Your task to perform on an android device: Search for usb-c to usb-b on walmart, select the first entry, add it to the cart, then select checkout. Image 0: 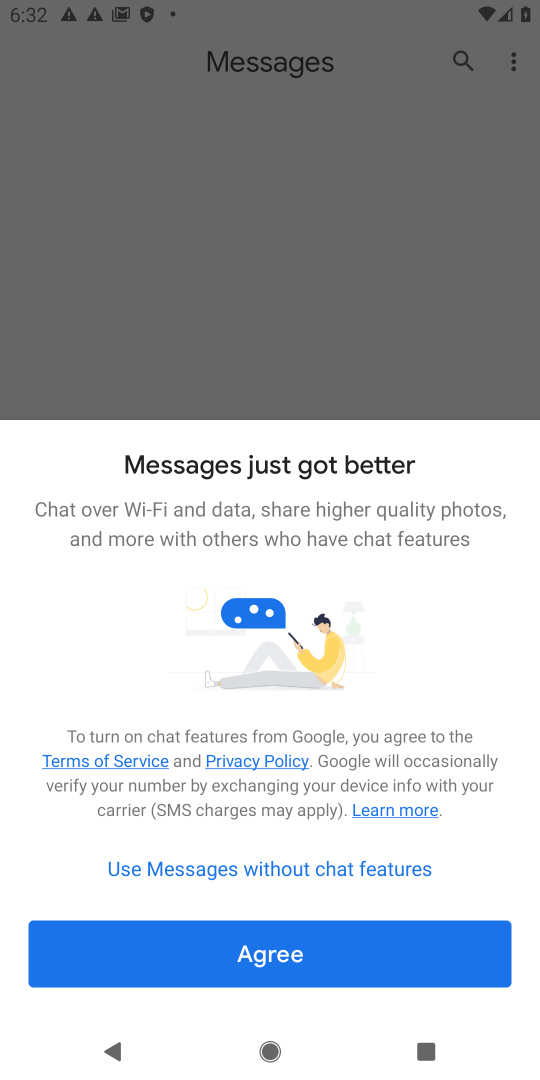
Step 0: press home button
Your task to perform on an android device: Search for usb-c to usb-b on walmart, select the first entry, add it to the cart, then select checkout. Image 1: 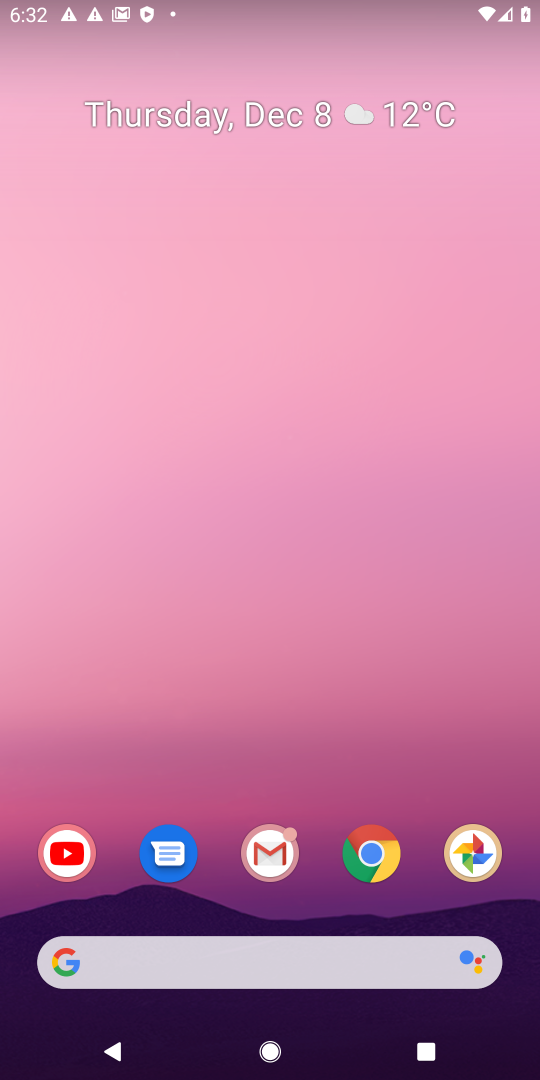
Step 1: click (216, 961)
Your task to perform on an android device: Search for usb-c to usb-b on walmart, select the first entry, add it to the cart, then select checkout. Image 2: 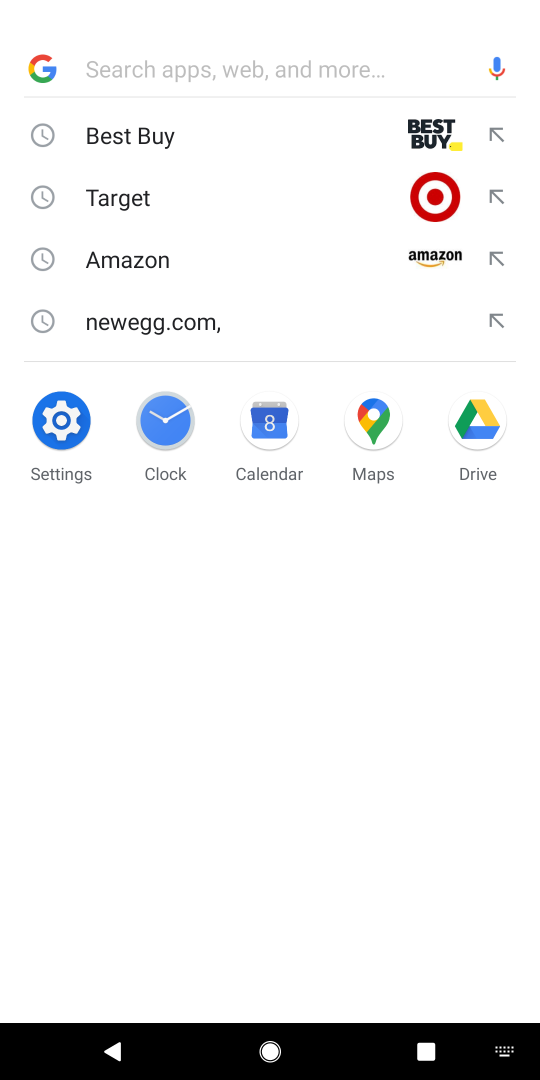
Step 2: type "walmart"
Your task to perform on an android device: Search for usb-c to usb-b on walmart, select the first entry, add it to the cart, then select checkout. Image 3: 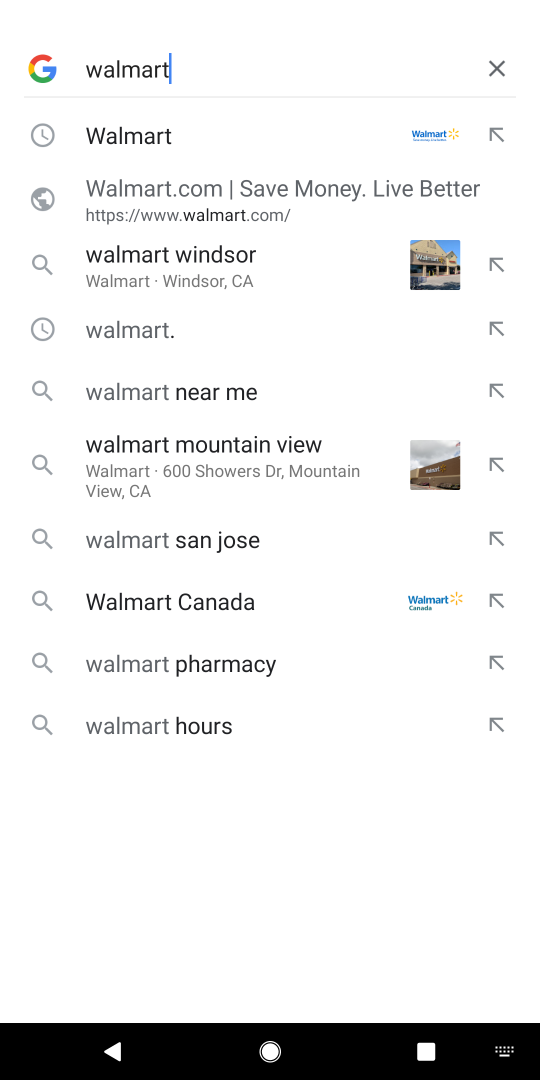
Step 3: type ""
Your task to perform on an android device: Search for usb-c to usb-b on walmart, select the first entry, add it to the cart, then select checkout. Image 4: 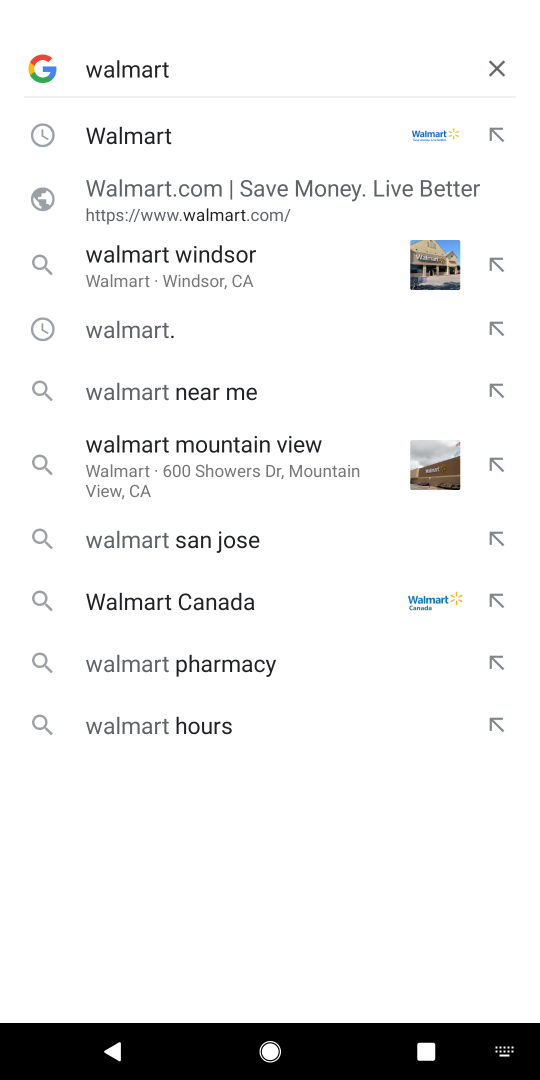
Step 4: click (146, 128)
Your task to perform on an android device: Search for usb-c to usb-b on walmart, select the first entry, add it to the cart, then select checkout. Image 5: 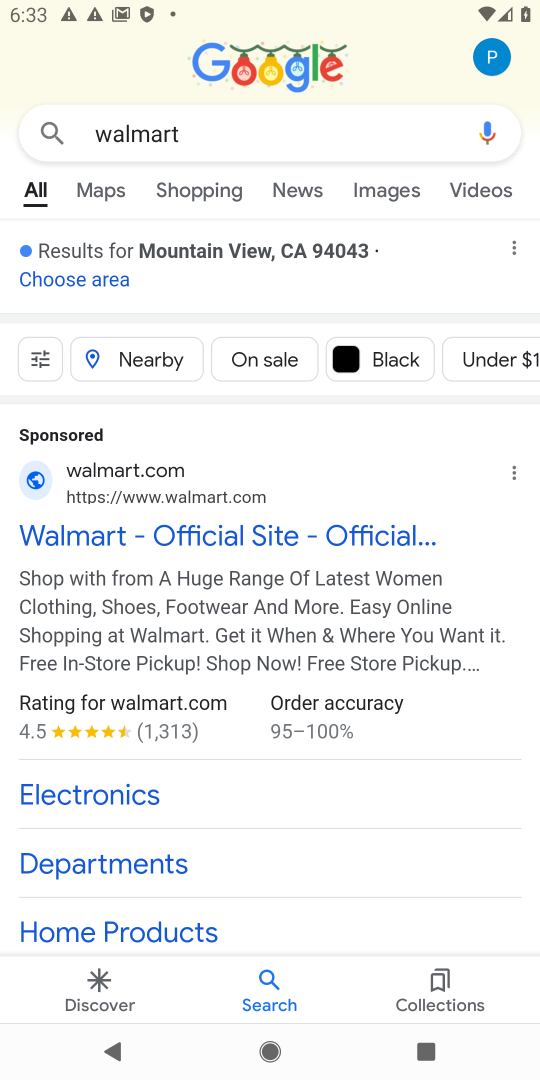
Step 5: click (210, 528)
Your task to perform on an android device: Search for usb-c to usb-b on walmart, select the first entry, add it to the cart, then select checkout. Image 6: 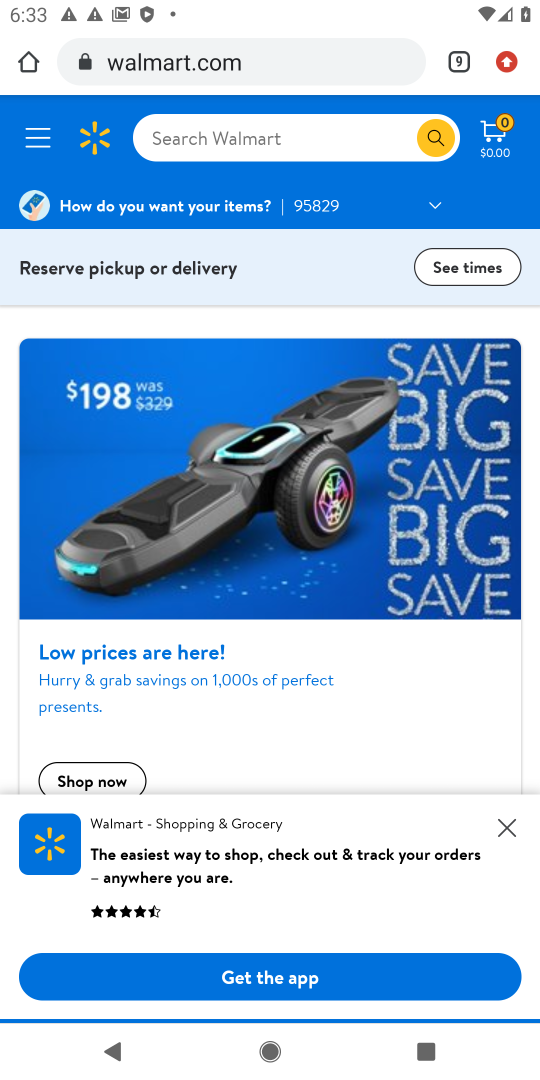
Step 6: click (281, 129)
Your task to perform on an android device: Search for usb-c to usb-b on walmart, select the first entry, add it to the cart, then select checkout. Image 7: 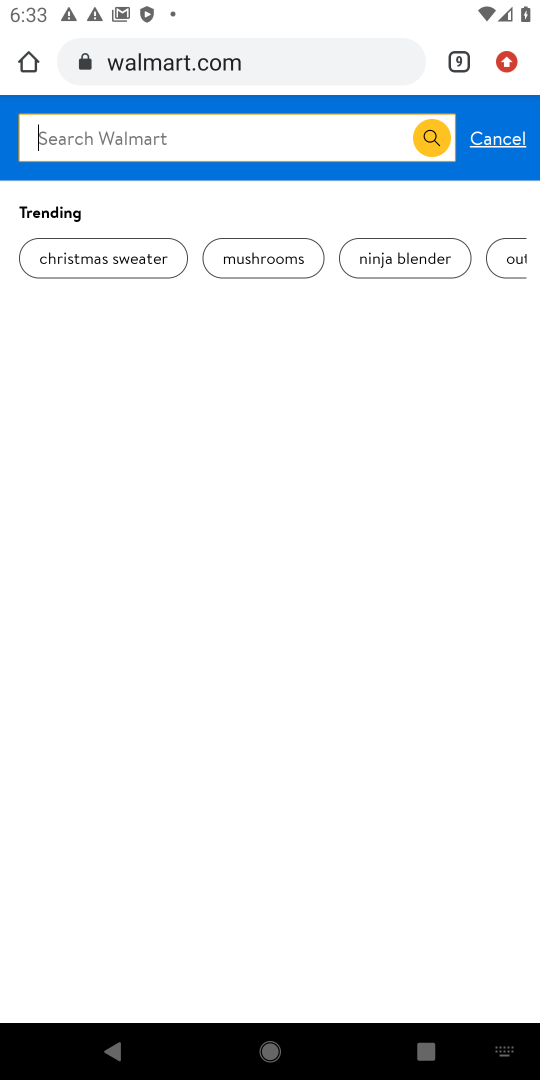
Step 7: type "usb-c to usb-b"
Your task to perform on an android device: Search for usb-c to usb-b on walmart, select the first entry, add it to the cart, then select checkout. Image 8: 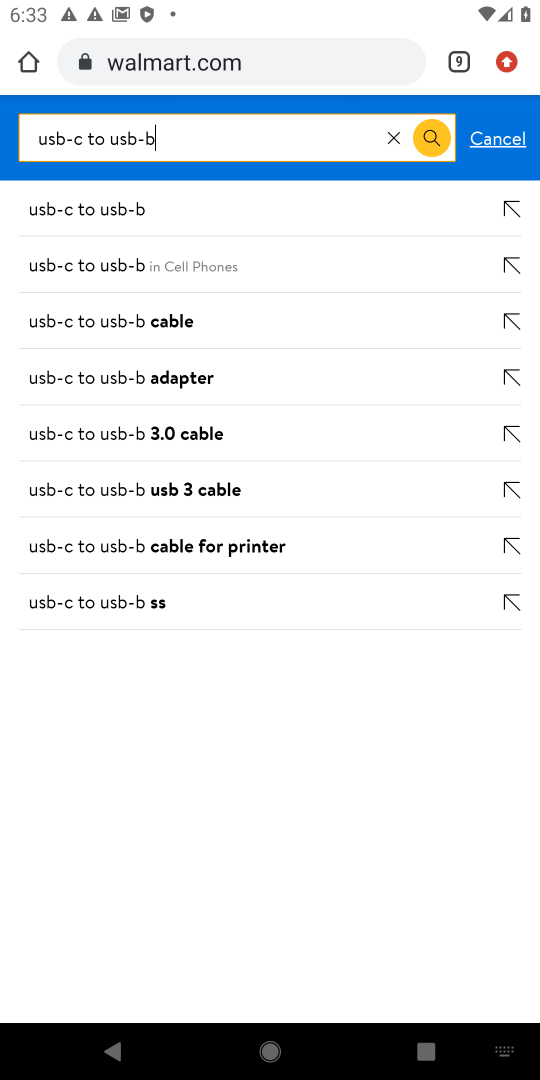
Step 8: click (86, 200)
Your task to perform on an android device: Search for usb-c to usb-b on walmart, select the first entry, add it to the cart, then select checkout. Image 9: 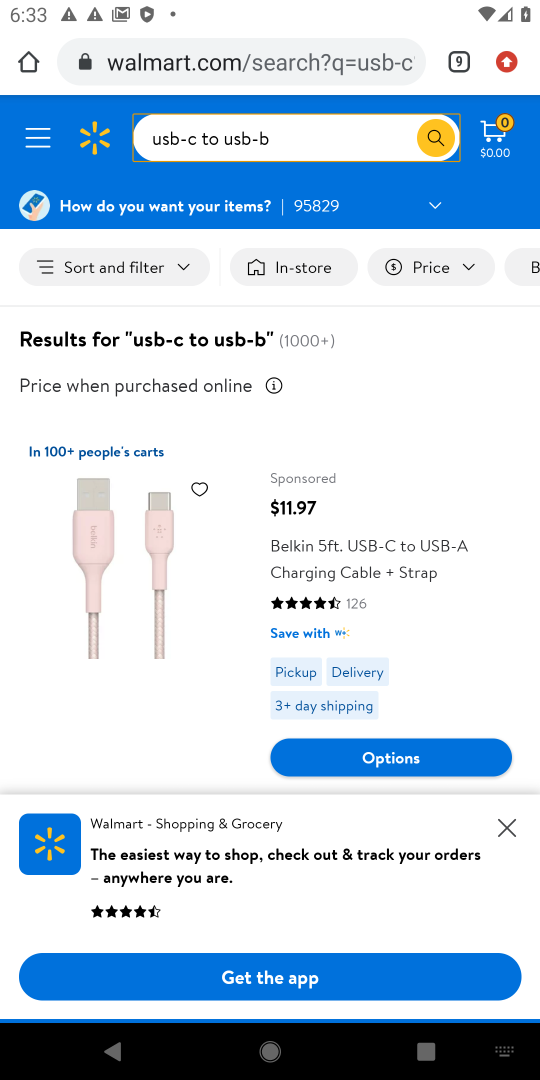
Step 9: click (505, 812)
Your task to perform on an android device: Search for usb-c to usb-b on walmart, select the first entry, add it to the cart, then select checkout. Image 10: 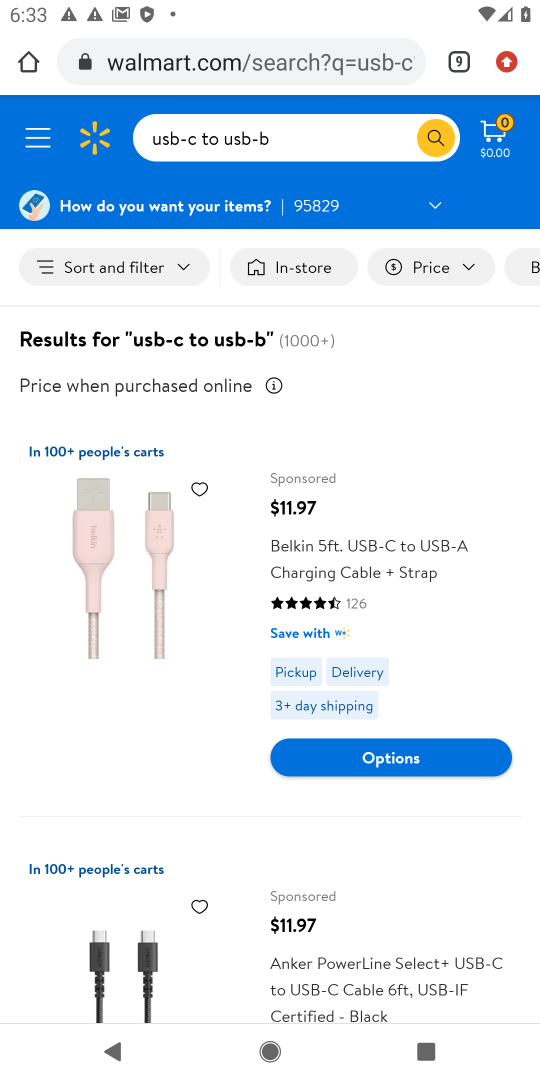
Step 10: click (505, 824)
Your task to perform on an android device: Search for usb-c to usb-b on walmart, select the first entry, add it to the cart, then select checkout. Image 11: 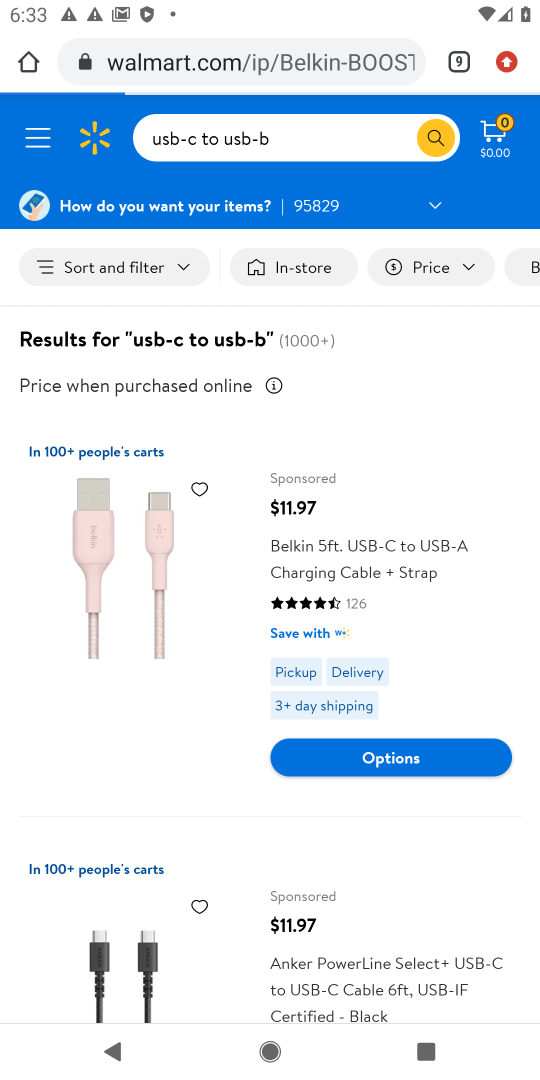
Step 11: click (401, 755)
Your task to perform on an android device: Search for usb-c to usb-b on walmart, select the first entry, add it to the cart, then select checkout. Image 12: 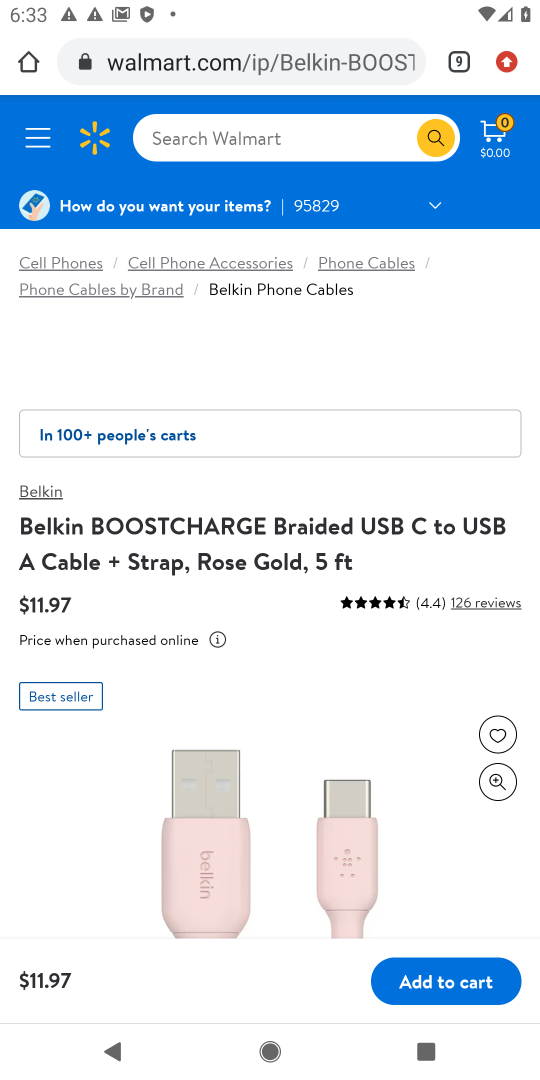
Step 12: click (413, 982)
Your task to perform on an android device: Search for usb-c to usb-b on walmart, select the first entry, add it to the cart, then select checkout. Image 13: 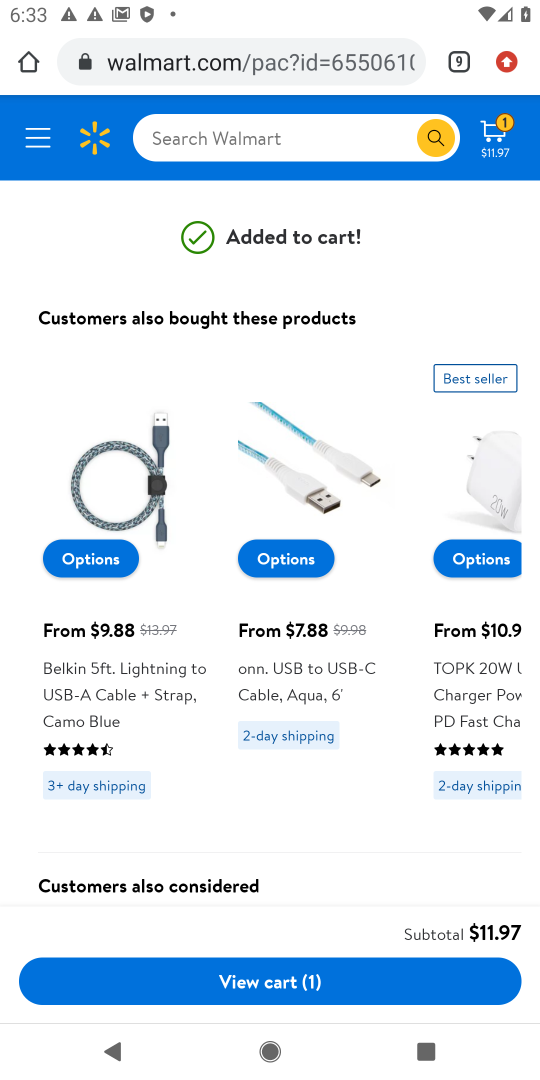
Step 13: click (228, 982)
Your task to perform on an android device: Search for usb-c to usb-b on walmart, select the first entry, add it to the cart, then select checkout. Image 14: 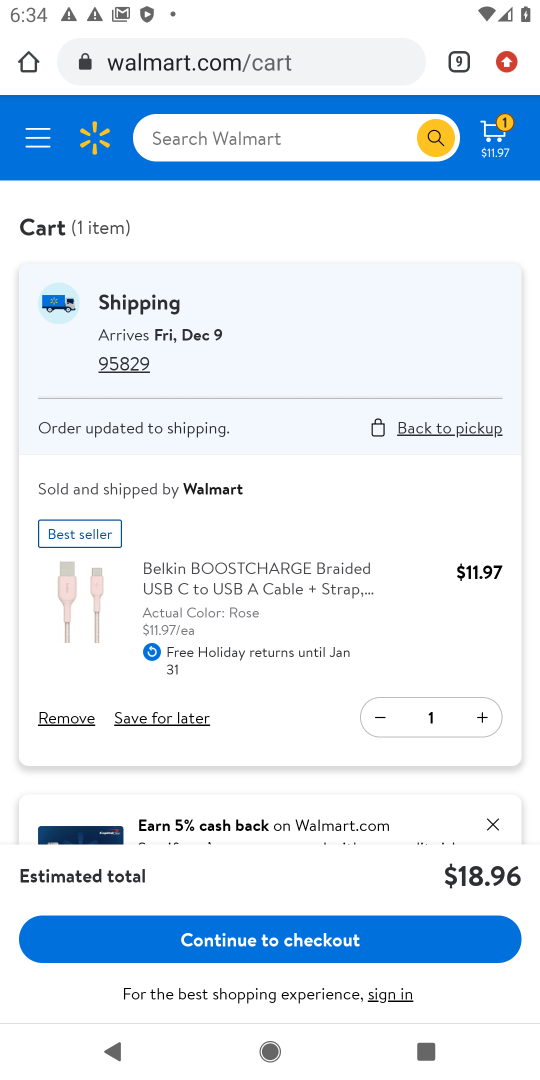
Step 14: click (261, 944)
Your task to perform on an android device: Search for usb-c to usb-b on walmart, select the first entry, add it to the cart, then select checkout. Image 15: 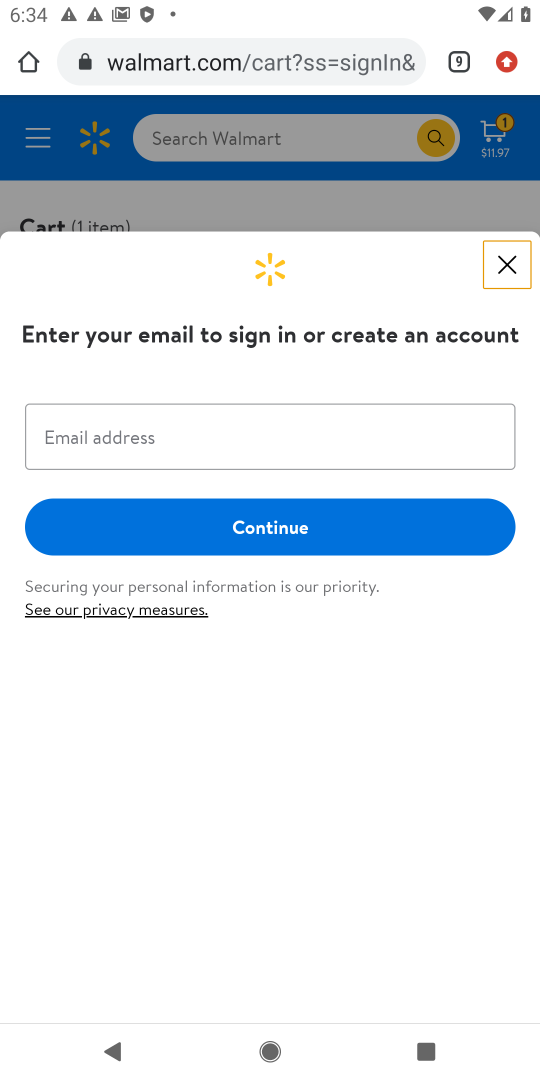
Step 15: task complete